Your task to perform on an android device: install app "YouTube Kids" Image 0: 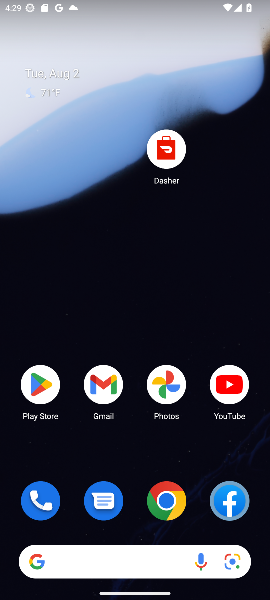
Step 0: click (39, 383)
Your task to perform on an android device: install app "YouTube Kids" Image 1: 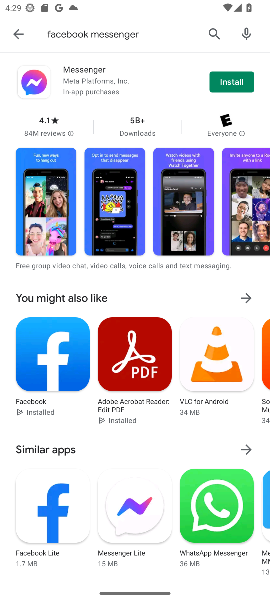
Step 1: click (209, 29)
Your task to perform on an android device: install app "YouTube Kids" Image 2: 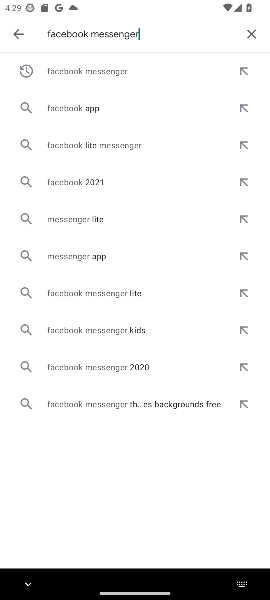
Step 2: click (252, 31)
Your task to perform on an android device: install app "YouTube Kids" Image 3: 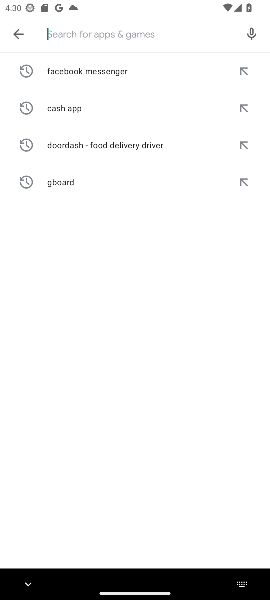
Step 3: type "YouTube Kids"
Your task to perform on an android device: install app "YouTube Kids" Image 4: 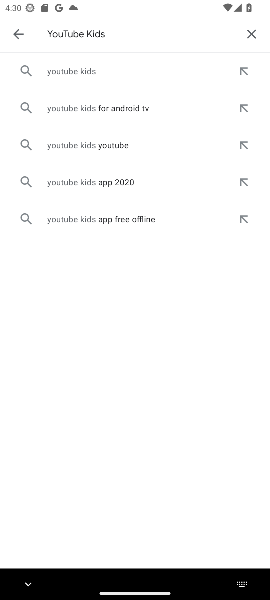
Step 4: click (54, 75)
Your task to perform on an android device: install app "YouTube Kids" Image 5: 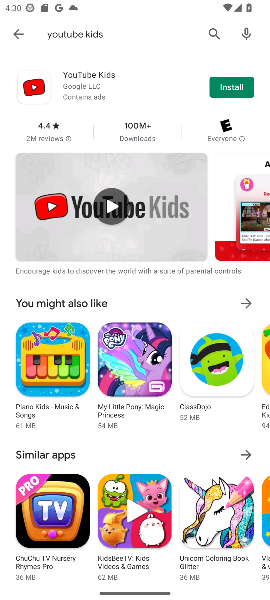
Step 5: click (221, 90)
Your task to perform on an android device: install app "YouTube Kids" Image 6: 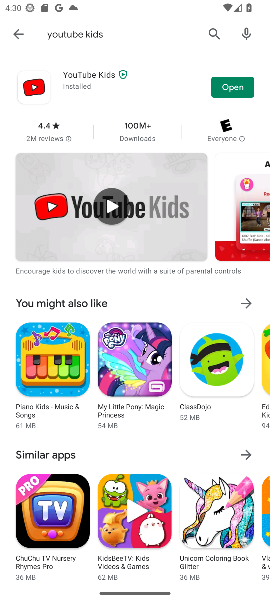
Step 6: task complete